Your task to perform on an android device: What's the news in Taiwan? Image 0: 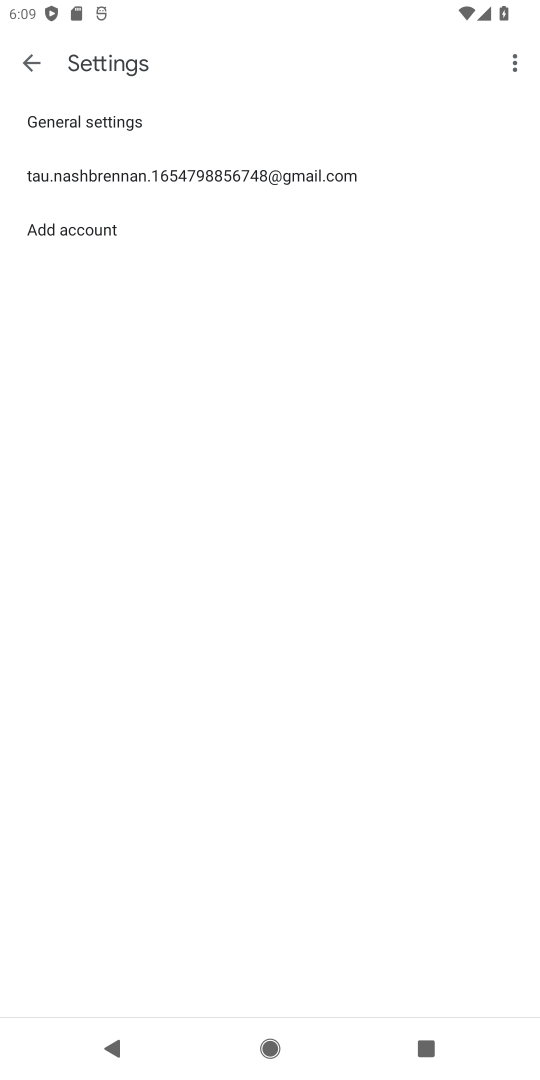
Step 0: press home button
Your task to perform on an android device: What's the news in Taiwan? Image 1: 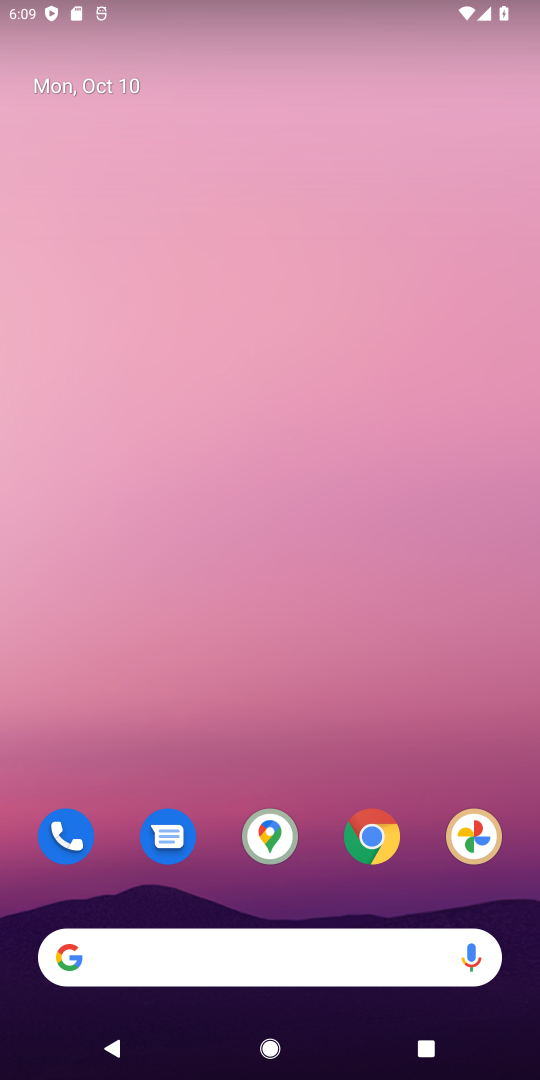
Step 1: click (371, 846)
Your task to perform on an android device: What's the news in Taiwan? Image 2: 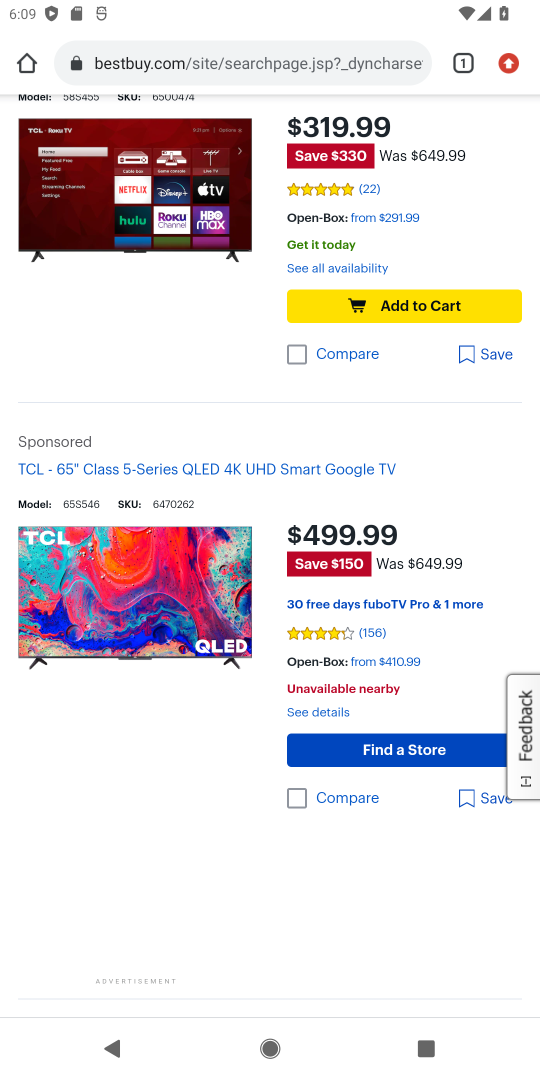
Step 2: click (289, 40)
Your task to perform on an android device: What's the news in Taiwan? Image 3: 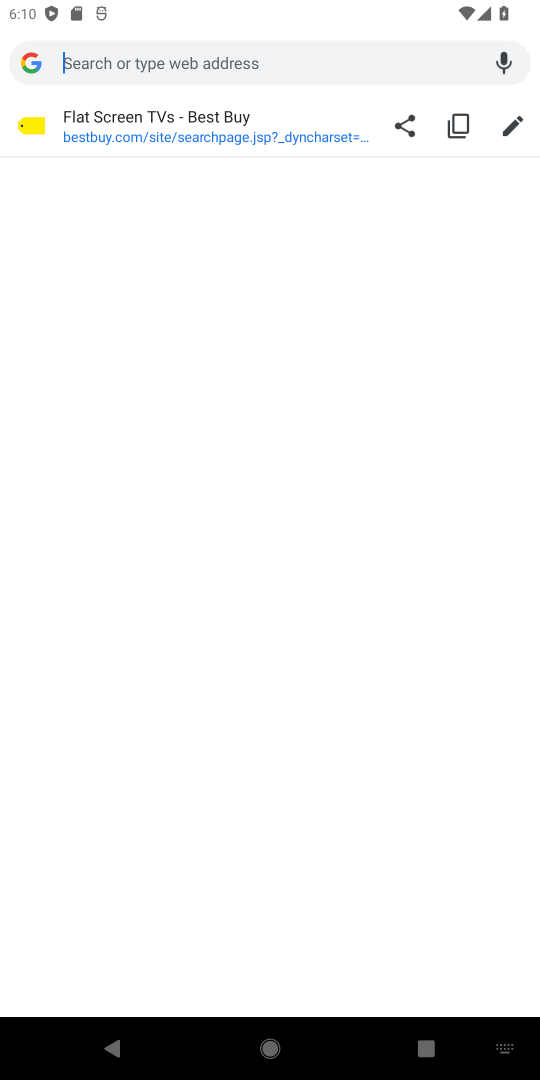
Step 3: type "news in taiwan?"
Your task to perform on an android device: What's the news in Taiwan? Image 4: 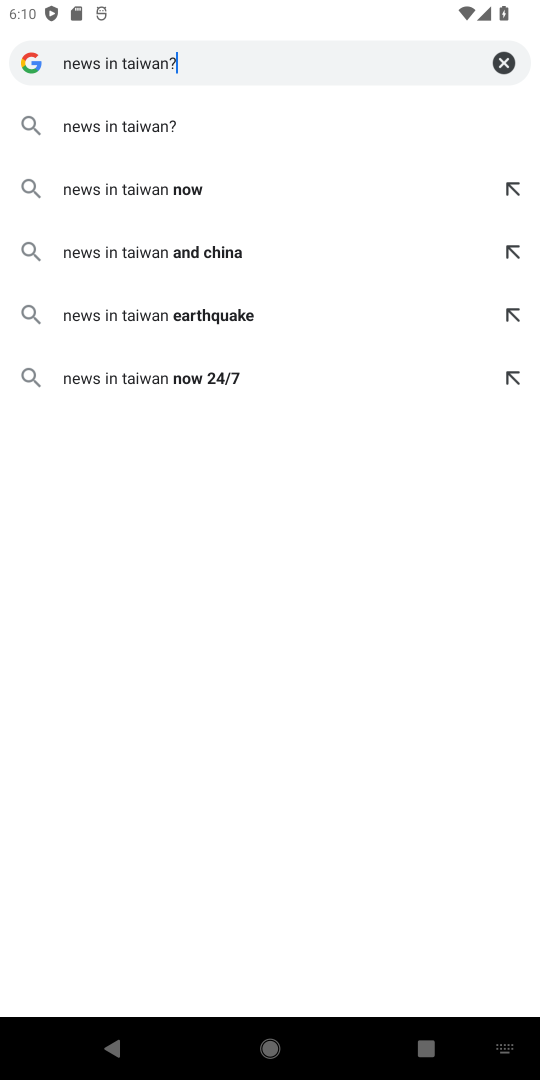
Step 4: click (109, 125)
Your task to perform on an android device: What's the news in Taiwan? Image 5: 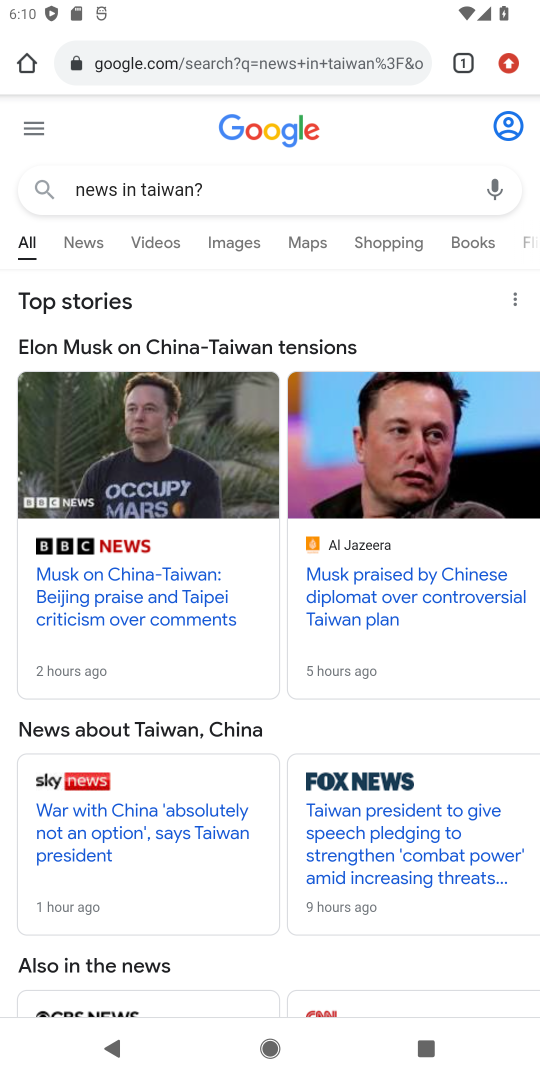
Step 5: drag from (282, 757) to (268, 207)
Your task to perform on an android device: What's the news in Taiwan? Image 6: 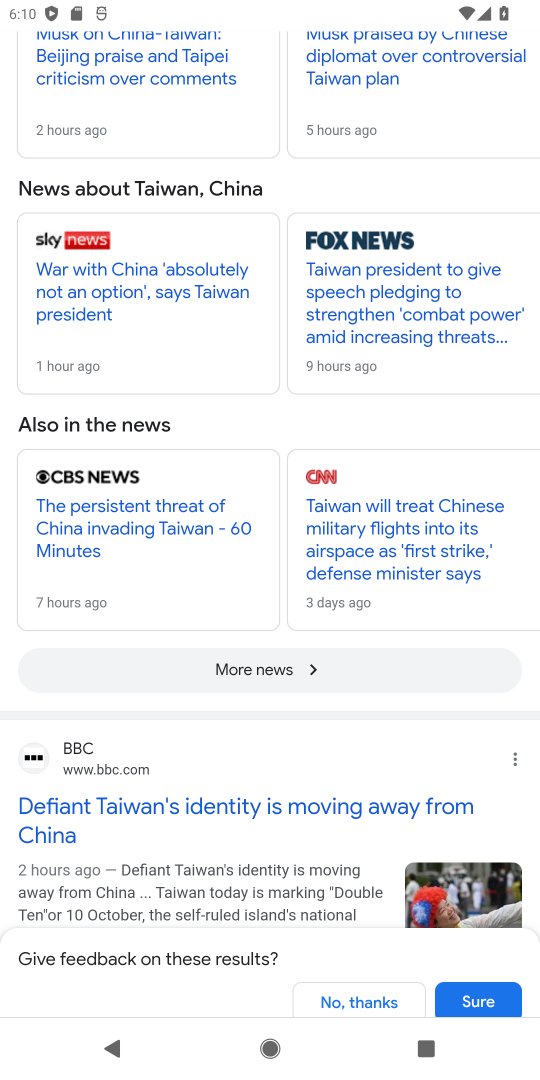
Step 6: drag from (267, 715) to (270, 353)
Your task to perform on an android device: What's the news in Taiwan? Image 7: 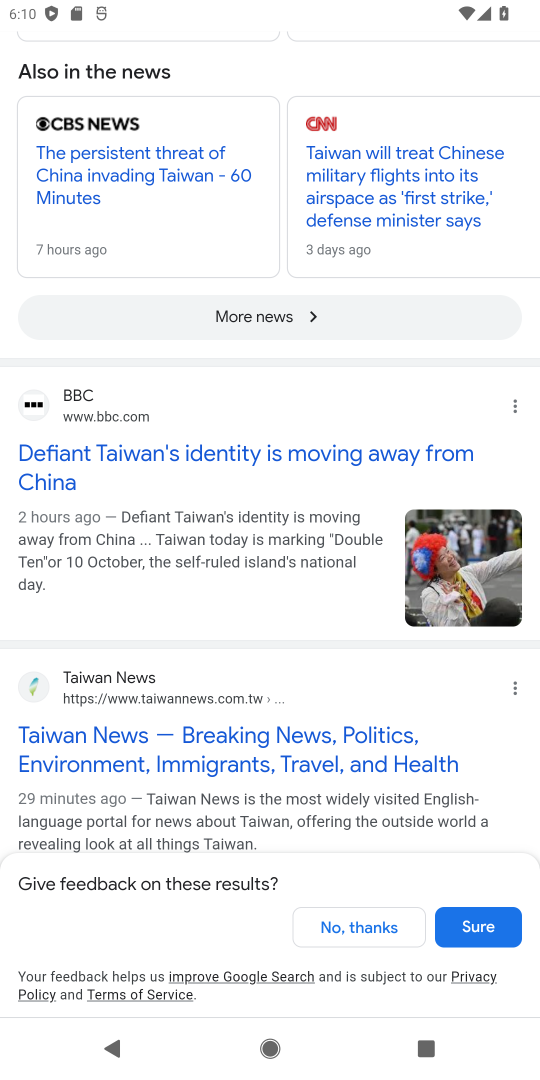
Step 7: click (88, 460)
Your task to perform on an android device: What's the news in Taiwan? Image 8: 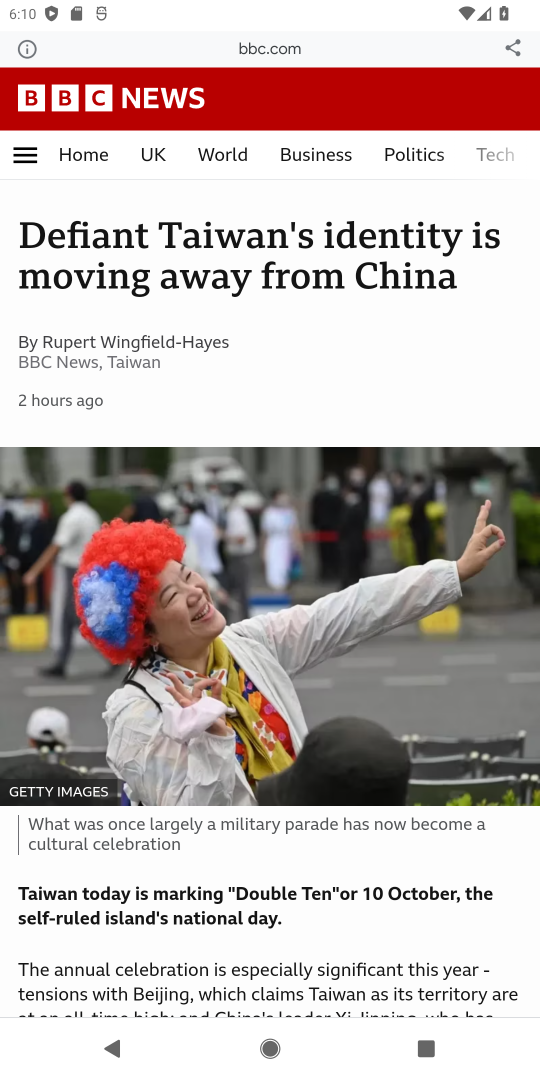
Step 8: task complete